Your task to perform on an android device: toggle javascript in the chrome app Image 0: 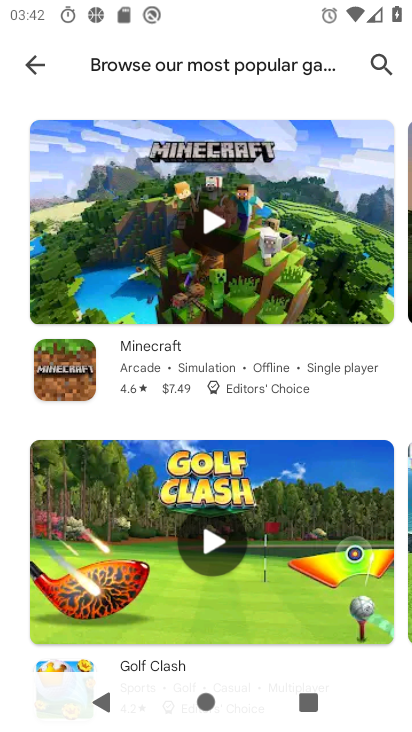
Step 0: click (46, 67)
Your task to perform on an android device: toggle javascript in the chrome app Image 1: 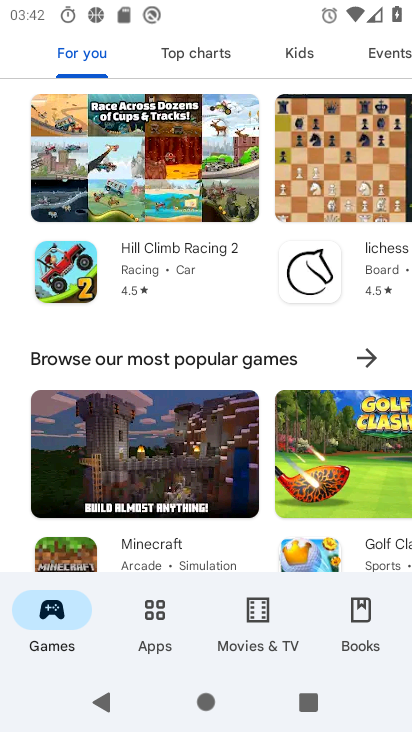
Step 1: press back button
Your task to perform on an android device: toggle javascript in the chrome app Image 2: 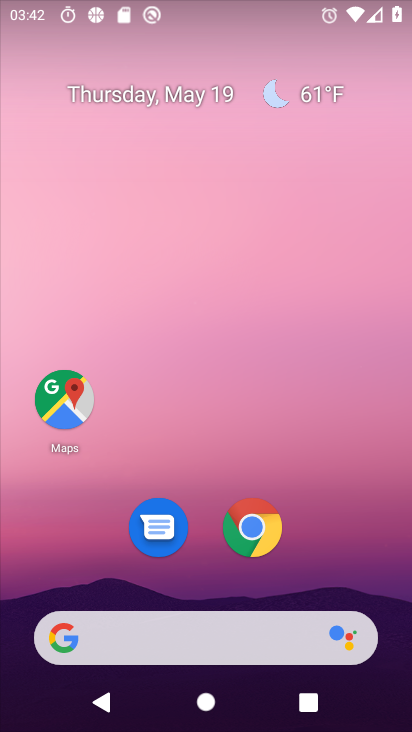
Step 2: click (259, 533)
Your task to perform on an android device: toggle javascript in the chrome app Image 3: 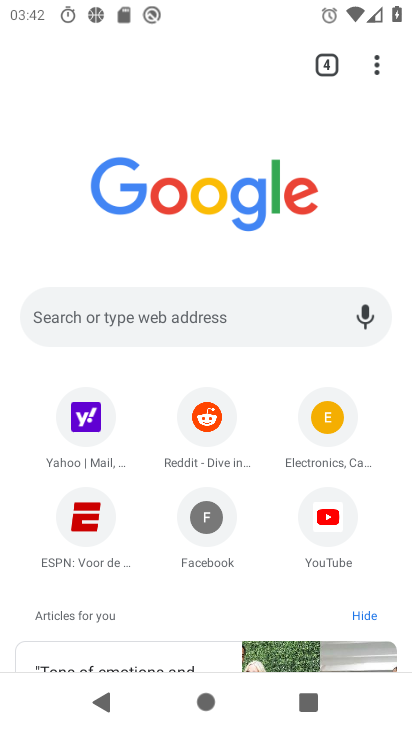
Step 3: drag from (380, 66) to (156, 543)
Your task to perform on an android device: toggle javascript in the chrome app Image 4: 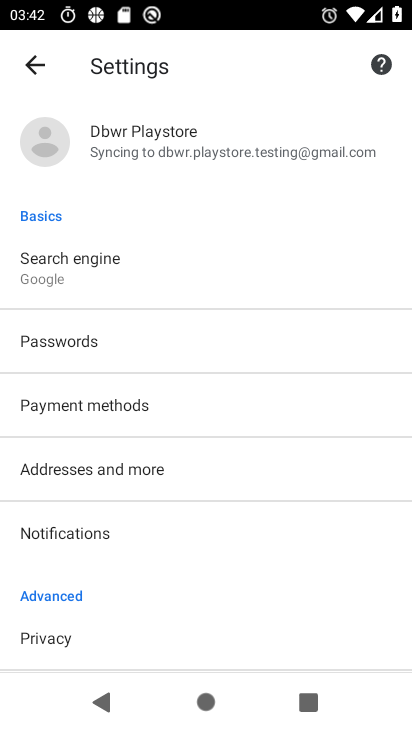
Step 4: drag from (157, 653) to (224, 121)
Your task to perform on an android device: toggle javascript in the chrome app Image 5: 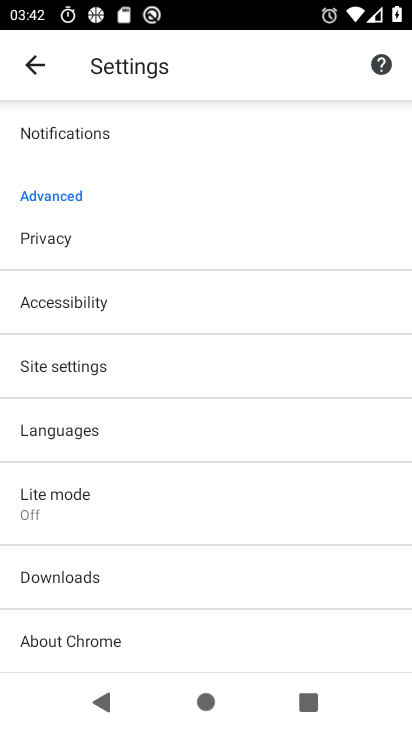
Step 5: click (71, 364)
Your task to perform on an android device: toggle javascript in the chrome app Image 6: 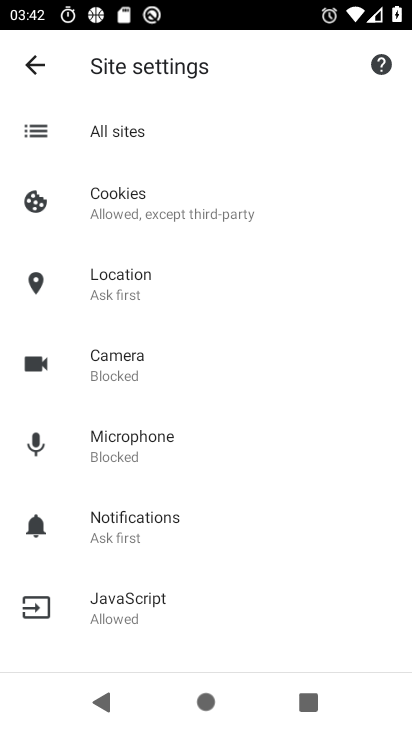
Step 6: click (113, 611)
Your task to perform on an android device: toggle javascript in the chrome app Image 7: 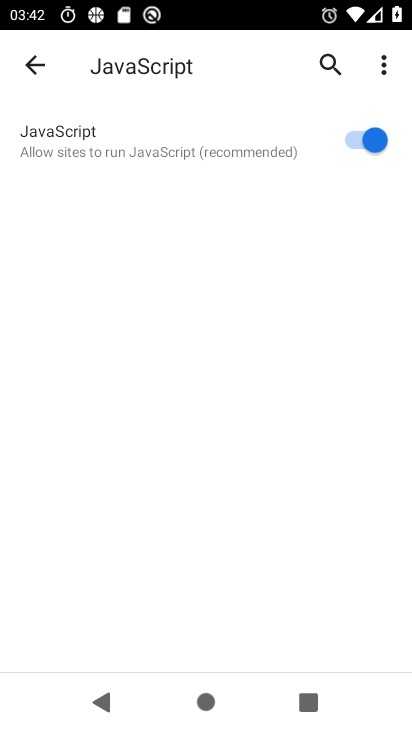
Step 7: click (355, 141)
Your task to perform on an android device: toggle javascript in the chrome app Image 8: 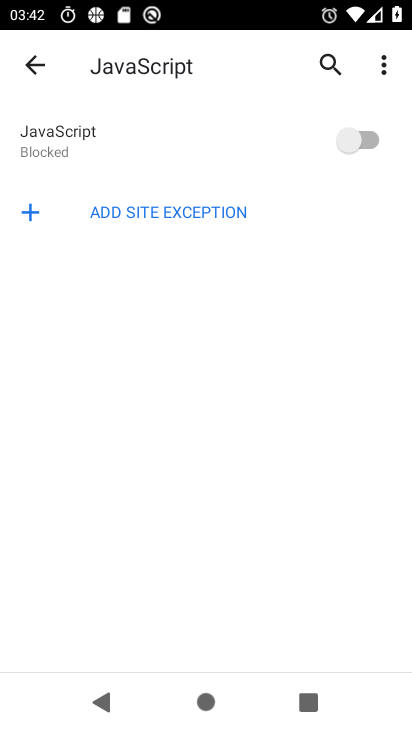
Step 8: task complete